Your task to perform on an android device: delete the emails in spam in the gmail app Image 0: 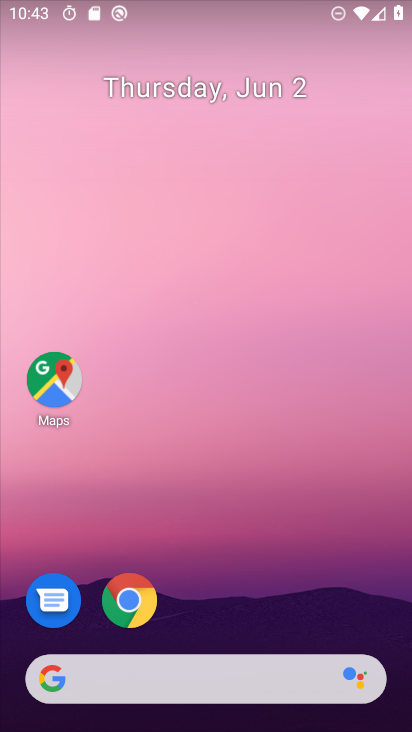
Step 0: drag from (237, 613) to (251, 77)
Your task to perform on an android device: delete the emails in spam in the gmail app Image 1: 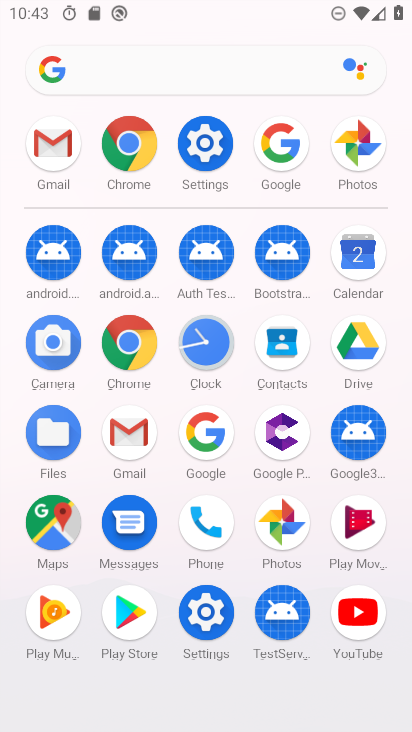
Step 1: click (122, 430)
Your task to perform on an android device: delete the emails in spam in the gmail app Image 2: 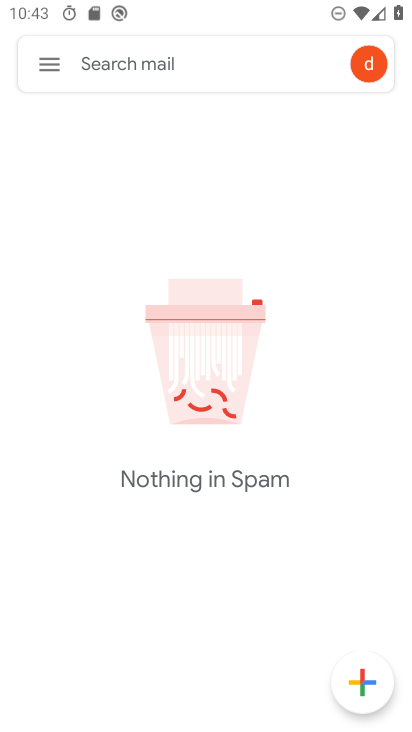
Step 2: click (51, 67)
Your task to perform on an android device: delete the emails in spam in the gmail app Image 3: 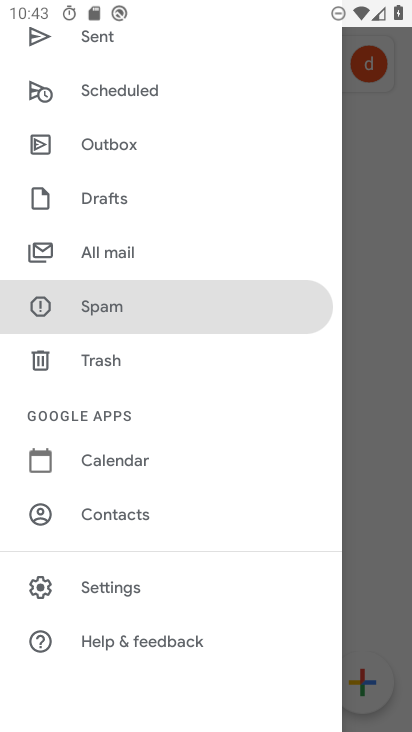
Step 3: click (119, 313)
Your task to perform on an android device: delete the emails in spam in the gmail app Image 4: 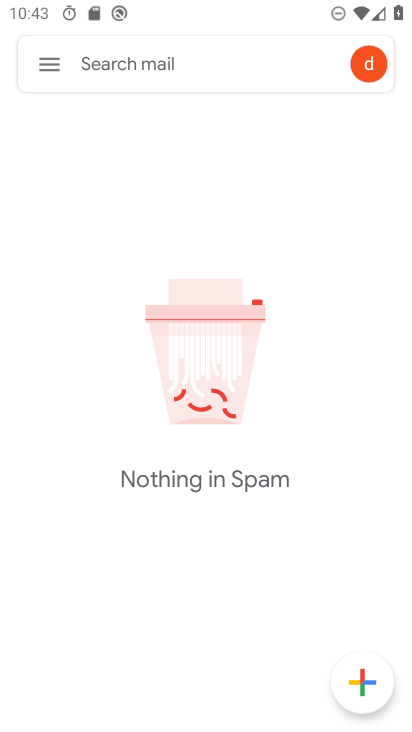
Step 4: task complete